Your task to perform on an android device: open the mobile data screen to see how much data has been used Image 0: 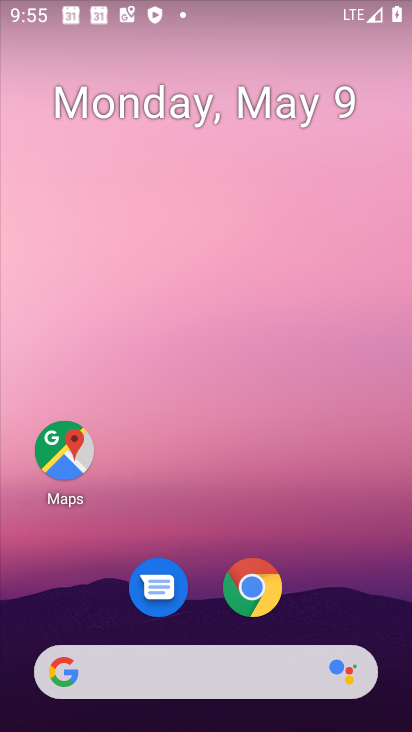
Step 0: drag from (216, 610) to (153, 32)
Your task to perform on an android device: open the mobile data screen to see how much data has been used Image 1: 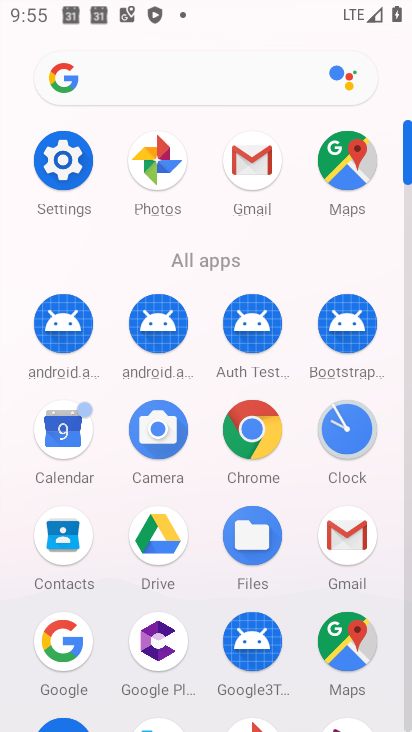
Step 1: click (68, 147)
Your task to perform on an android device: open the mobile data screen to see how much data has been used Image 2: 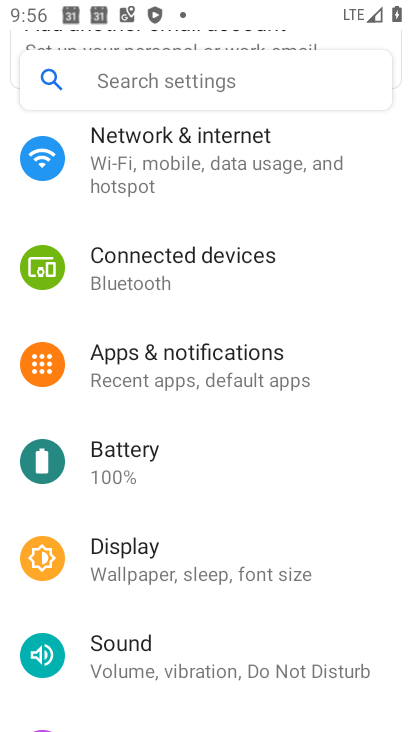
Step 2: click (235, 142)
Your task to perform on an android device: open the mobile data screen to see how much data has been used Image 3: 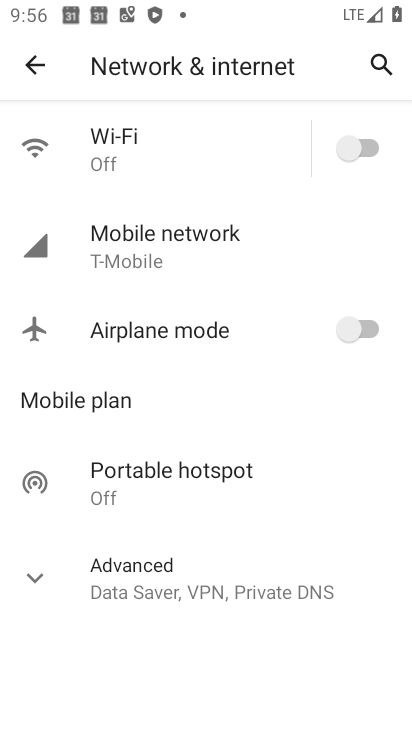
Step 3: click (174, 261)
Your task to perform on an android device: open the mobile data screen to see how much data has been used Image 4: 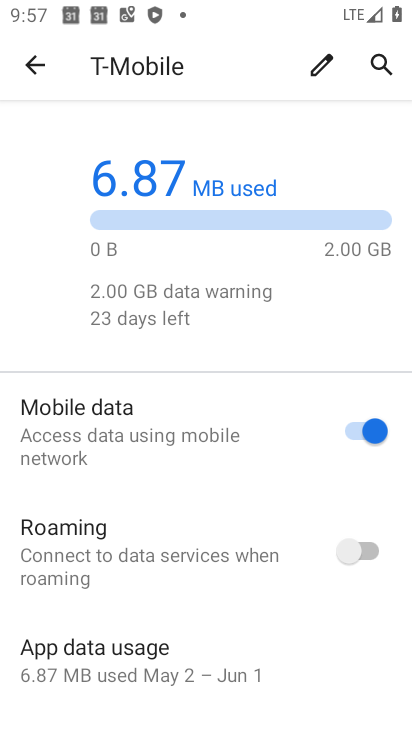
Step 4: task complete